Your task to perform on an android device: choose inbox layout in the gmail app Image 0: 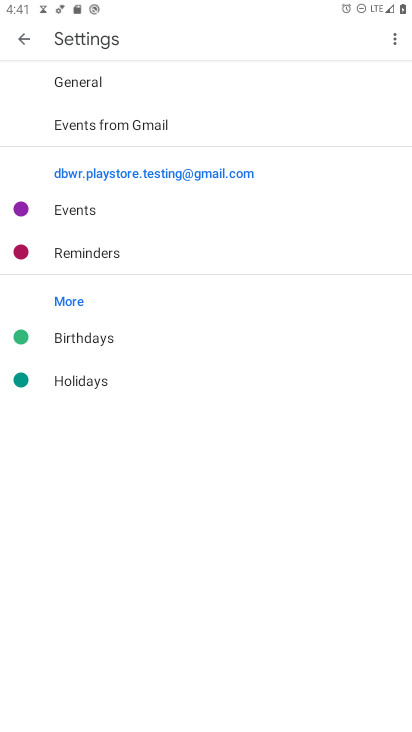
Step 0: press home button
Your task to perform on an android device: choose inbox layout in the gmail app Image 1: 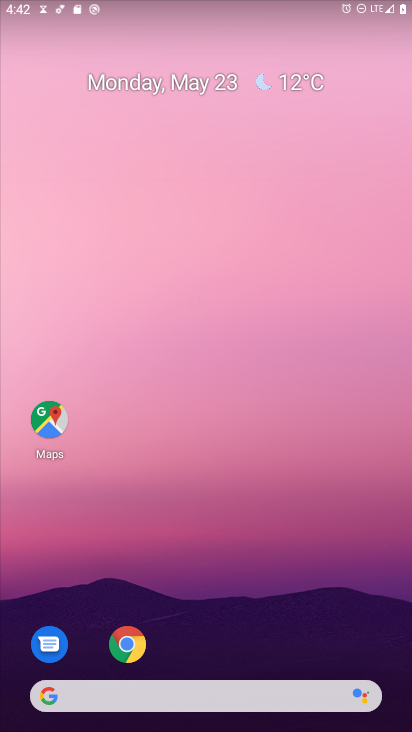
Step 1: drag from (270, 626) to (237, 24)
Your task to perform on an android device: choose inbox layout in the gmail app Image 2: 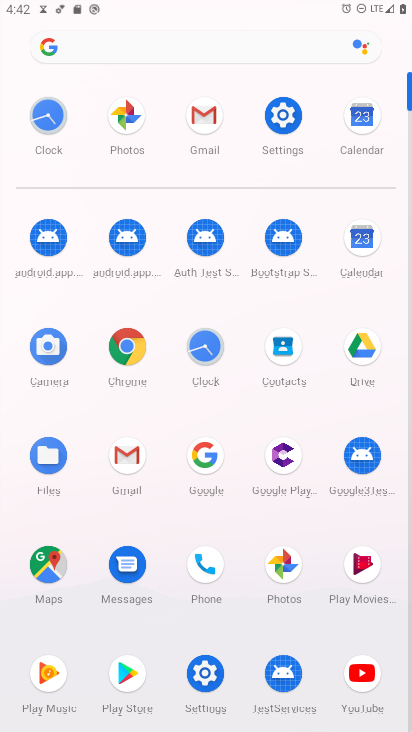
Step 2: click (202, 126)
Your task to perform on an android device: choose inbox layout in the gmail app Image 3: 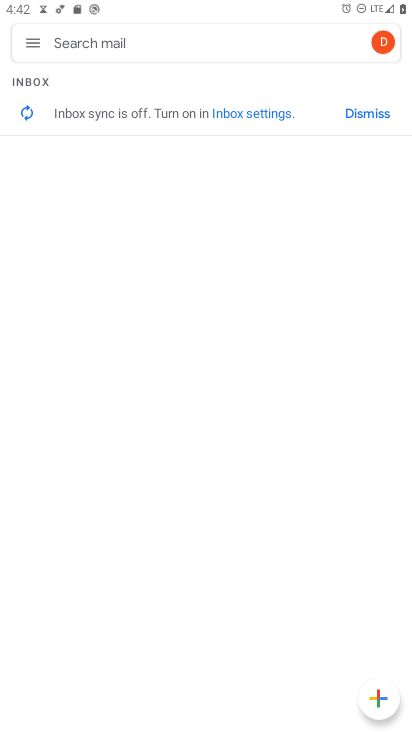
Step 3: click (21, 48)
Your task to perform on an android device: choose inbox layout in the gmail app Image 4: 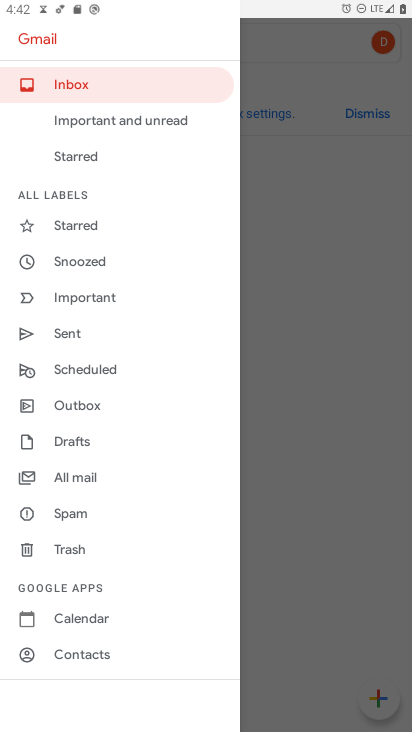
Step 4: drag from (107, 648) to (124, 269)
Your task to perform on an android device: choose inbox layout in the gmail app Image 5: 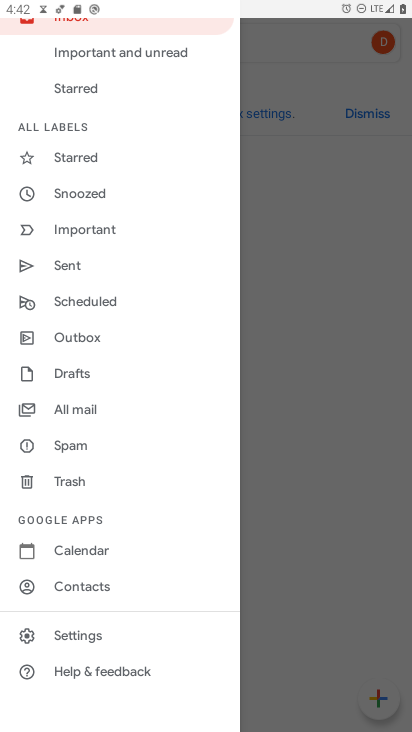
Step 5: click (95, 644)
Your task to perform on an android device: choose inbox layout in the gmail app Image 6: 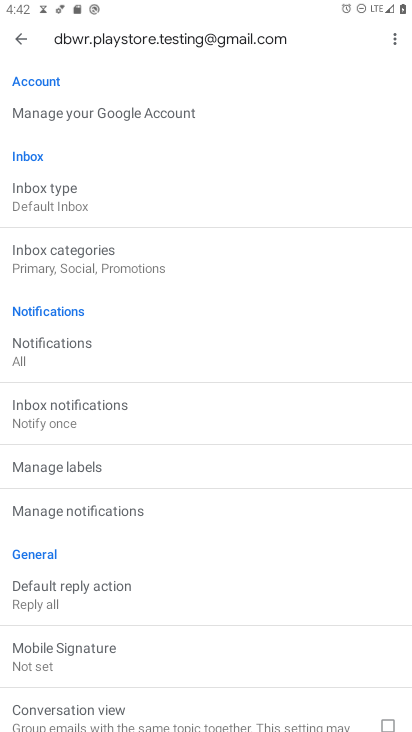
Step 6: click (142, 209)
Your task to perform on an android device: choose inbox layout in the gmail app Image 7: 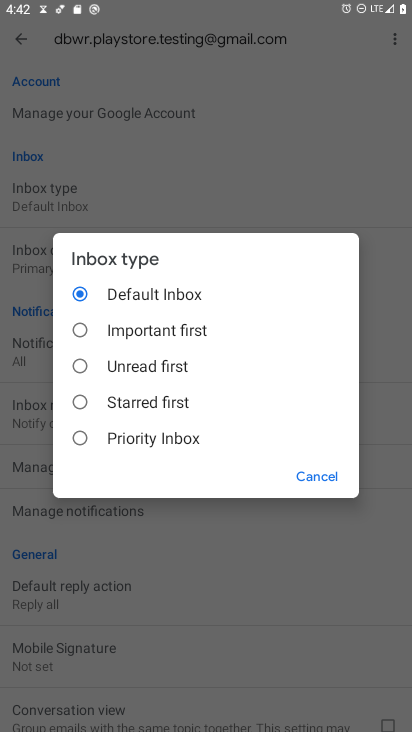
Step 7: click (180, 323)
Your task to perform on an android device: choose inbox layout in the gmail app Image 8: 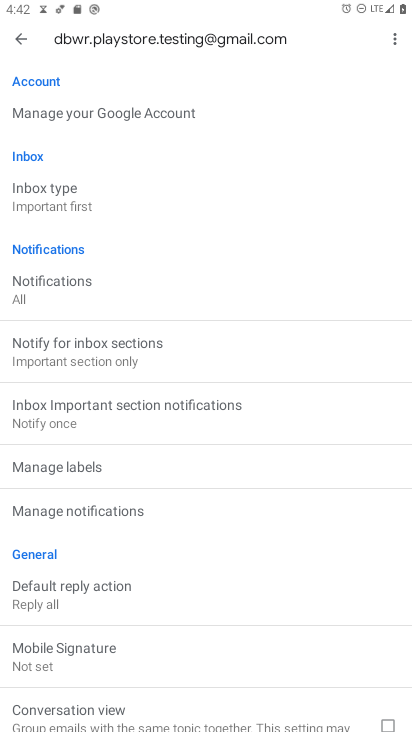
Step 8: task complete